Your task to perform on an android device: Search for vegetarian restaurants on Maps Image 0: 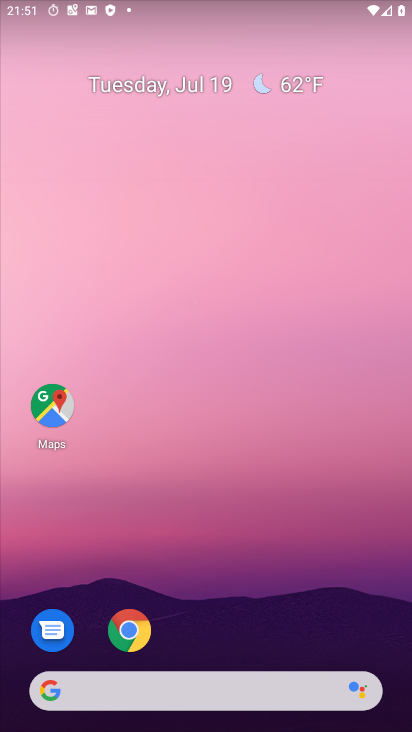
Step 0: click (37, 400)
Your task to perform on an android device: Search for vegetarian restaurants on Maps Image 1: 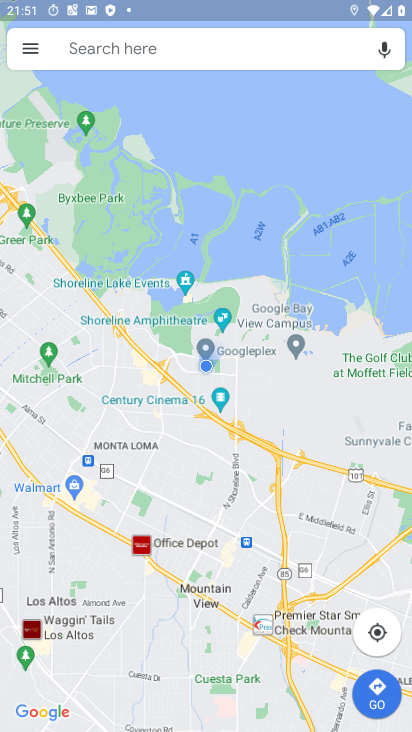
Step 1: click (92, 55)
Your task to perform on an android device: Search for vegetarian restaurants on Maps Image 2: 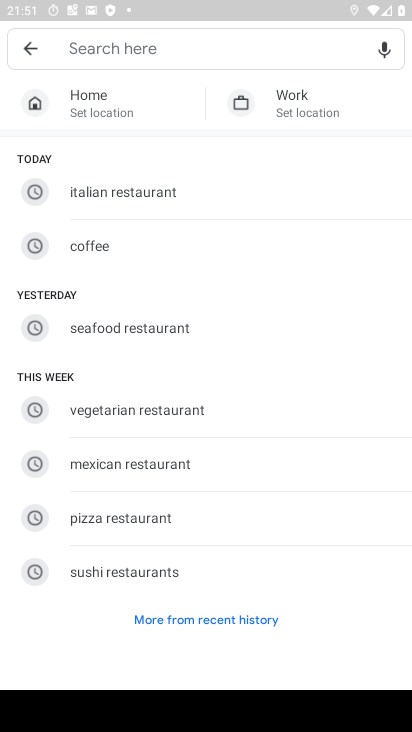
Step 2: click (110, 399)
Your task to perform on an android device: Search for vegetarian restaurants on Maps Image 3: 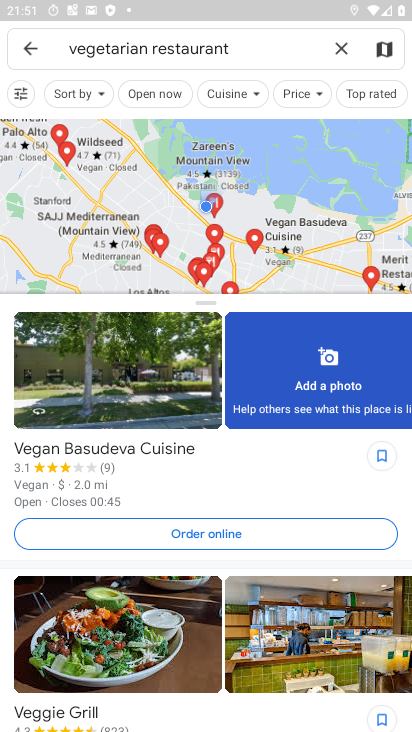
Step 3: task complete